Your task to perform on an android device: Open calendar and show me the third week of next month Image 0: 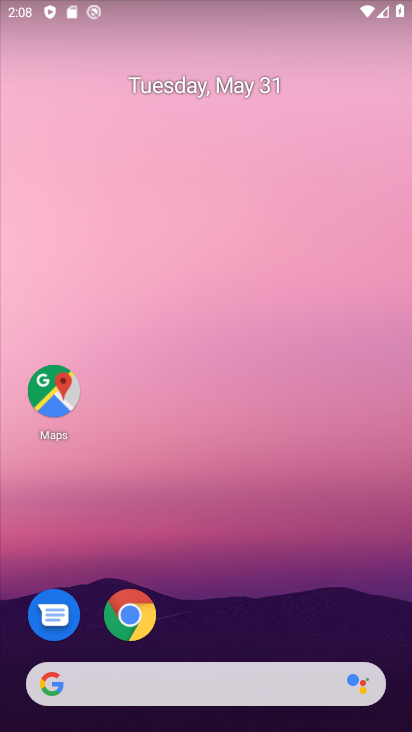
Step 0: drag from (267, 703) to (106, 121)
Your task to perform on an android device: Open calendar and show me the third week of next month Image 1: 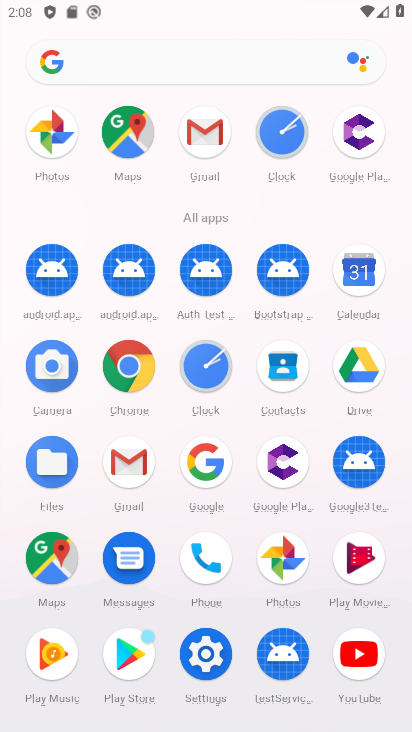
Step 1: click (369, 273)
Your task to perform on an android device: Open calendar and show me the third week of next month Image 2: 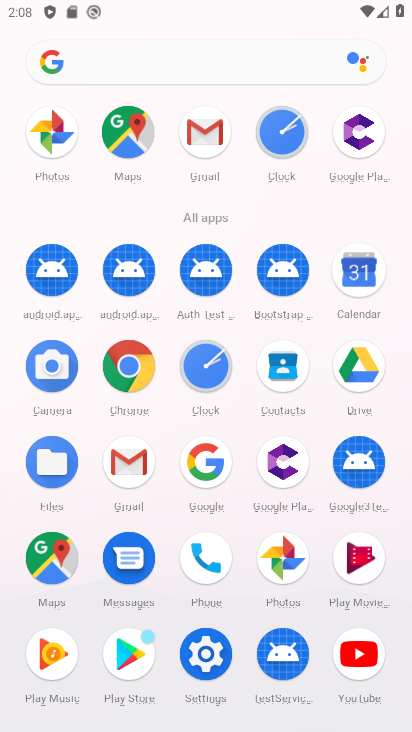
Step 2: click (361, 274)
Your task to perform on an android device: Open calendar and show me the third week of next month Image 3: 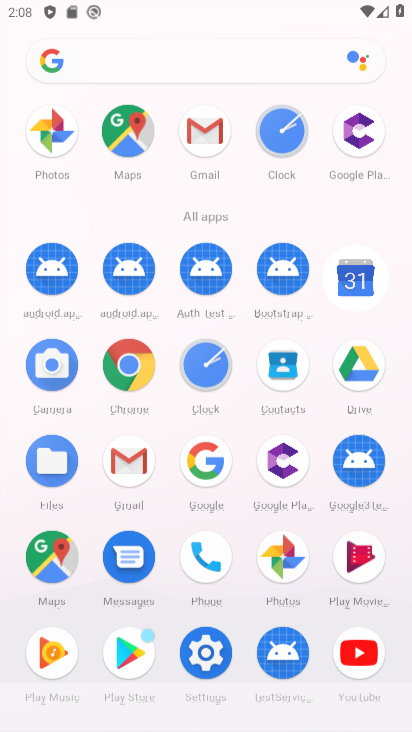
Step 3: click (361, 272)
Your task to perform on an android device: Open calendar and show me the third week of next month Image 4: 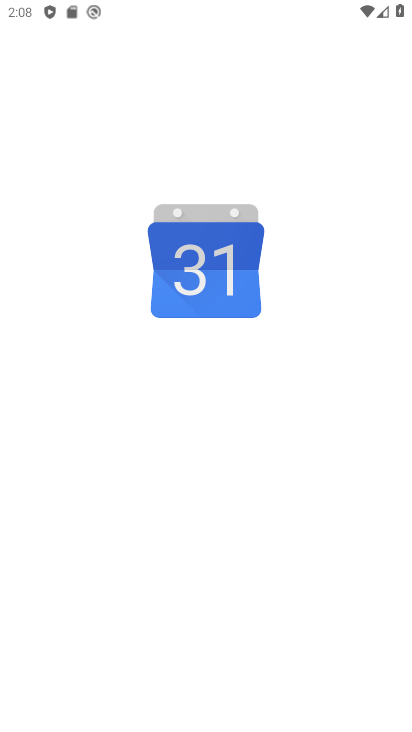
Step 4: click (361, 272)
Your task to perform on an android device: Open calendar and show me the third week of next month Image 5: 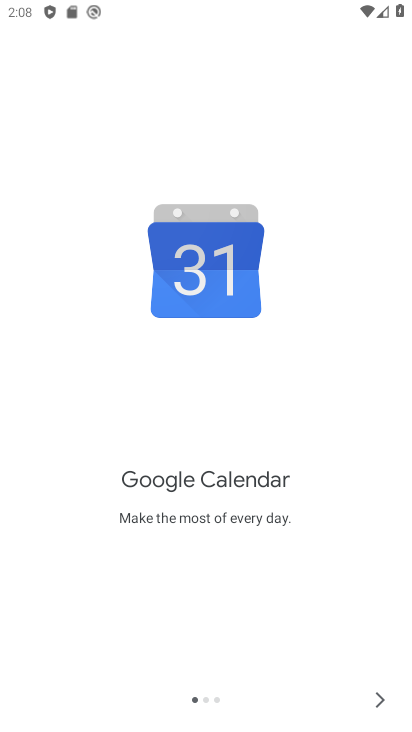
Step 5: click (376, 697)
Your task to perform on an android device: Open calendar and show me the third week of next month Image 6: 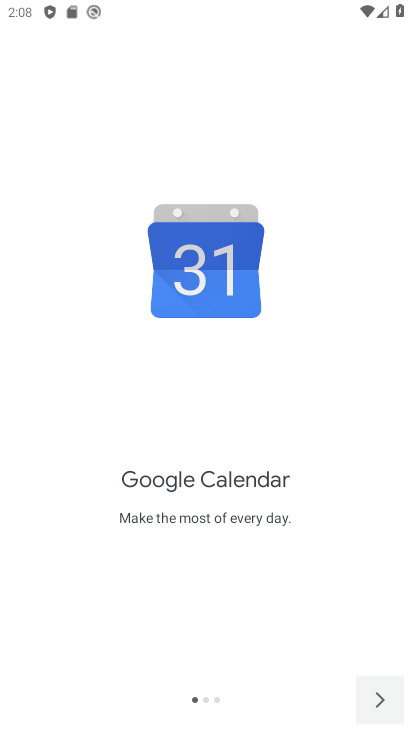
Step 6: click (376, 697)
Your task to perform on an android device: Open calendar and show me the third week of next month Image 7: 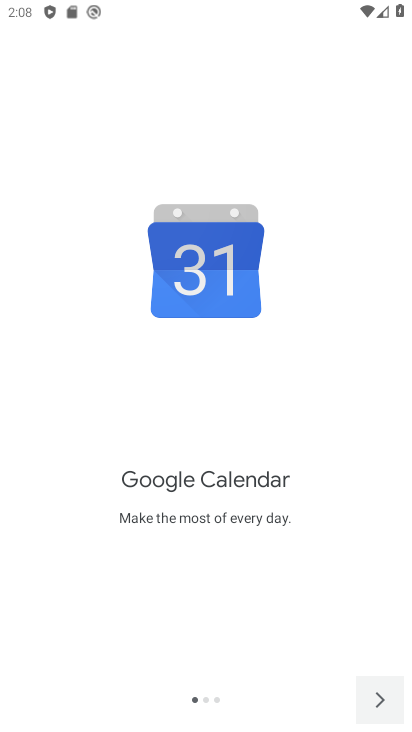
Step 7: click (376, 697)
Your task to perform on an android device: Open calendar and show me the third week of next month Image 8: 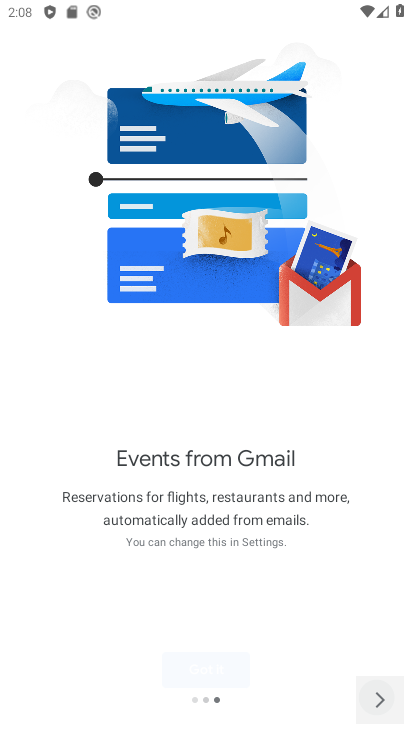
Step 8: click (376, 697)
Your task to perform on an android device: Open calendar and show me the third week of next month Image 9: 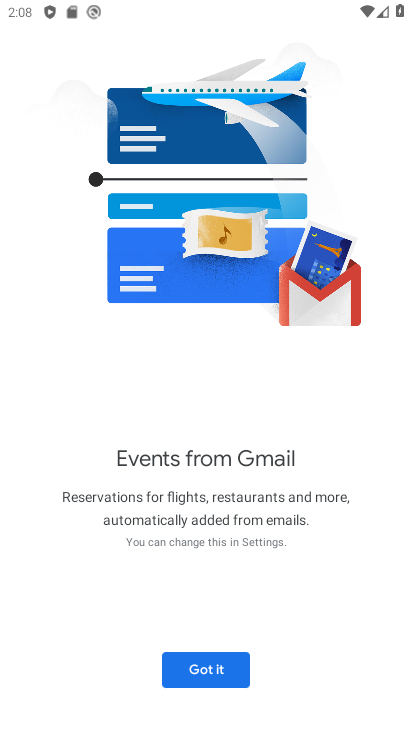
Step 9: click (380, 698)
Your task to perform on an android device: Open calendar and show me the third week of next month Image 10: 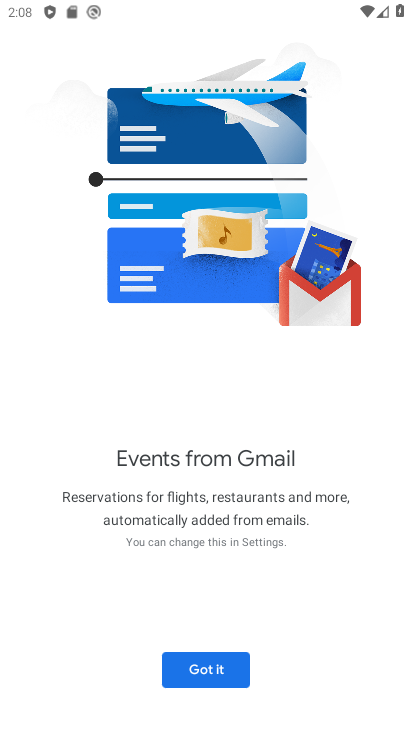
Step 10: click (363, 693)
Your task to perform on an android device: Open calendar and show me the third week of next month Image 11: 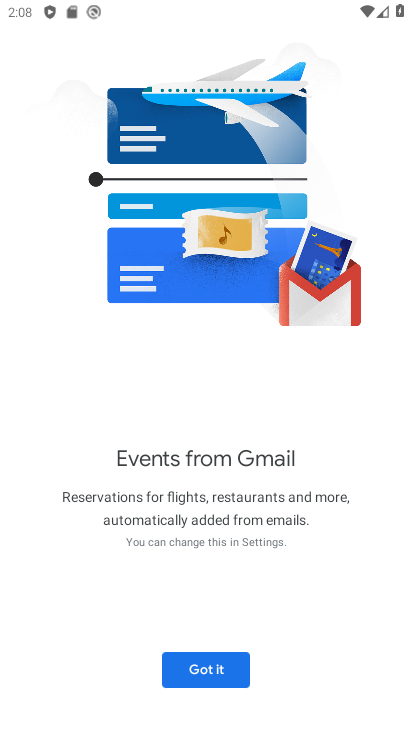
Step 11: click (192, 672)
Your task to perform on an android device: Open calendar and show me the third week of next month Image 12: 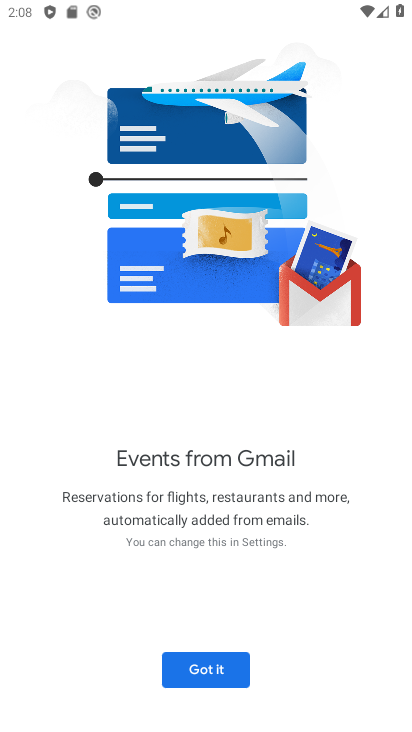
Step 12: click (197, 674)
Your task to perform on an android device: Open calendar and show me the third week of next month Image 13: 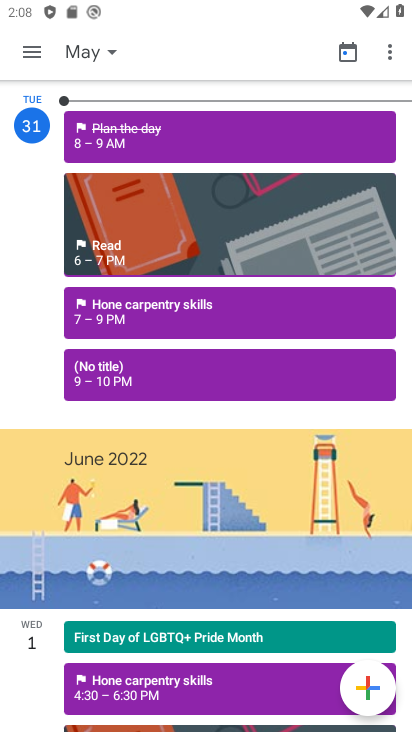
Step 13: click (111, 53)
Your task to perform on an android device: Open calendar and show me the third week of next month Image 14: 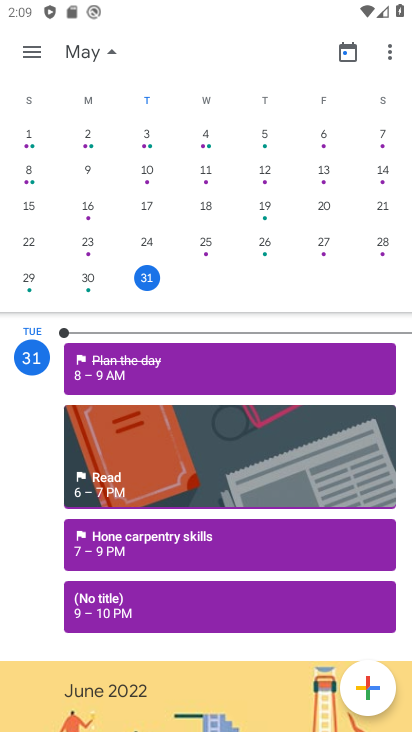
Step 14: drag from (69, 259) to (57, 134)
Your task to perform on an android device: Open calendar and show me the third week of next month Image 15: 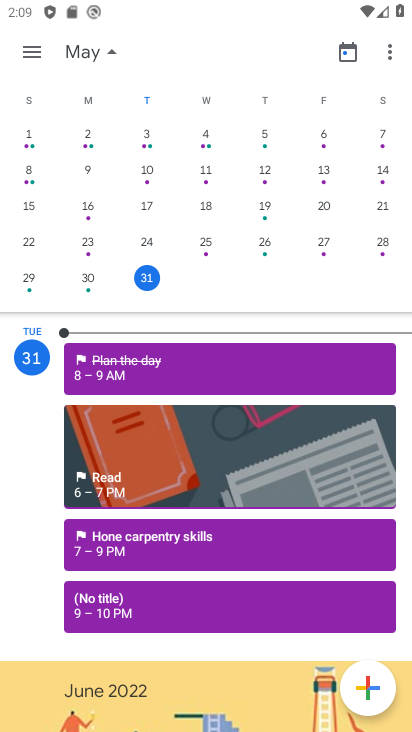
Step 15: drag from (304, 158) to (12, 146)
Your task to perform on an android device: Open calendar and show me the third week of next month Image 16: 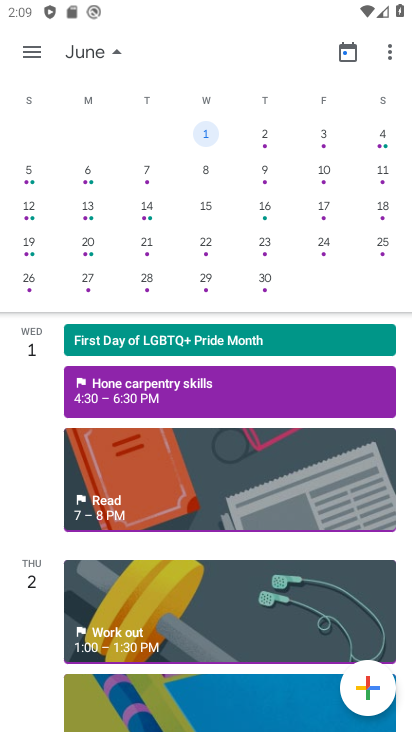
Step 16: click (207, 205)
Your task to perform on an android device: Open calendar and show me the third week of next month Image 17: 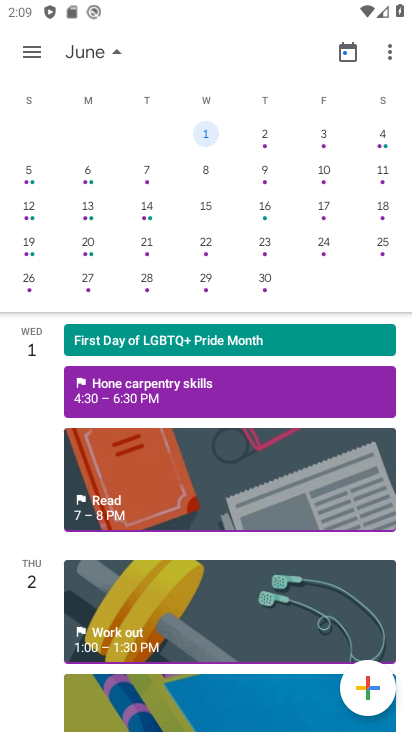
Step 17: click (209, 204)
Your task to perform on an android device: Open calendar and show me the third week of next month Image 18: 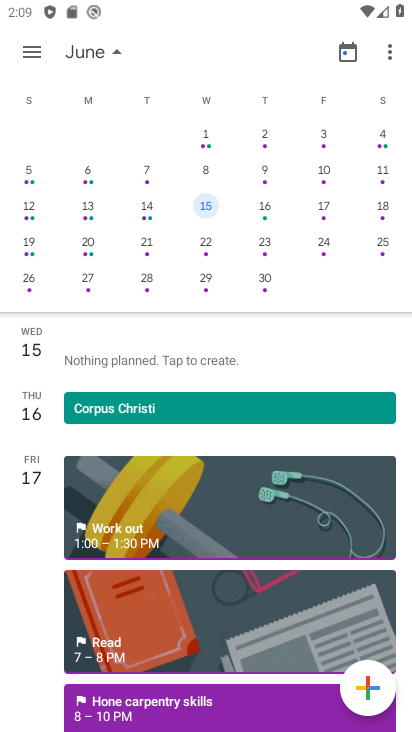
Step 18: click (210, 205)
Your task to perform on an android device: Open calendar and show me the third week of next month Image 19: 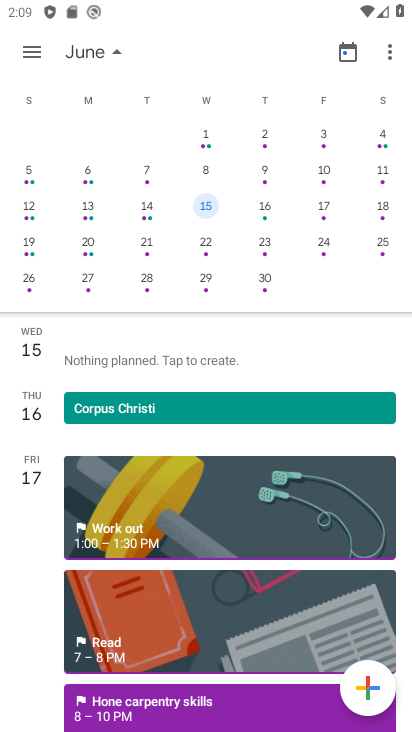
Step 19: task complete